Your task to perform on an android device: Go to network settings Image 0: 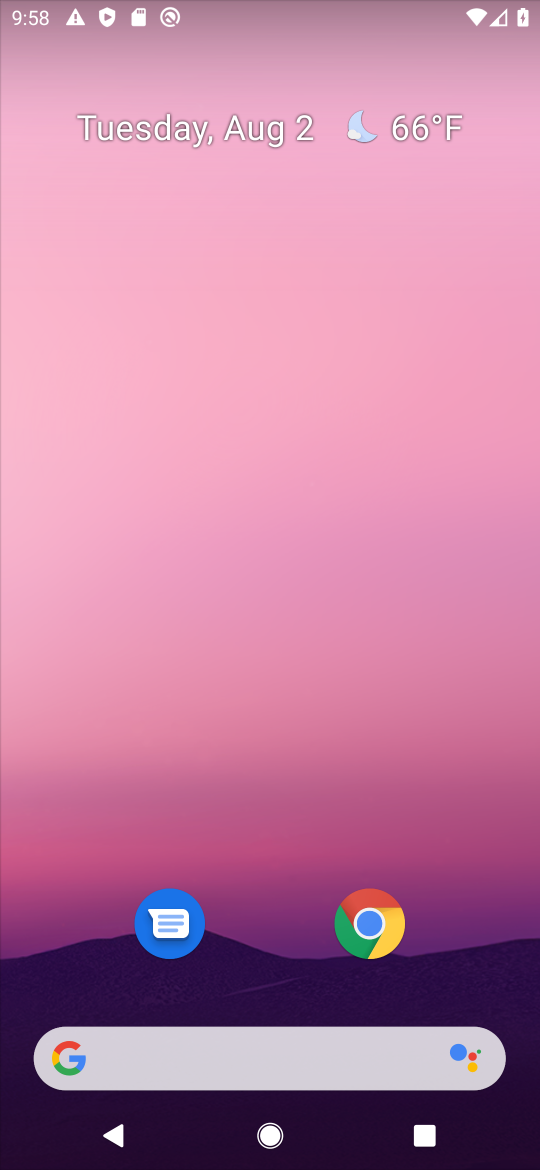
Step 0: press home button
Your task to perform on an android device: Go to network settings Image 1: 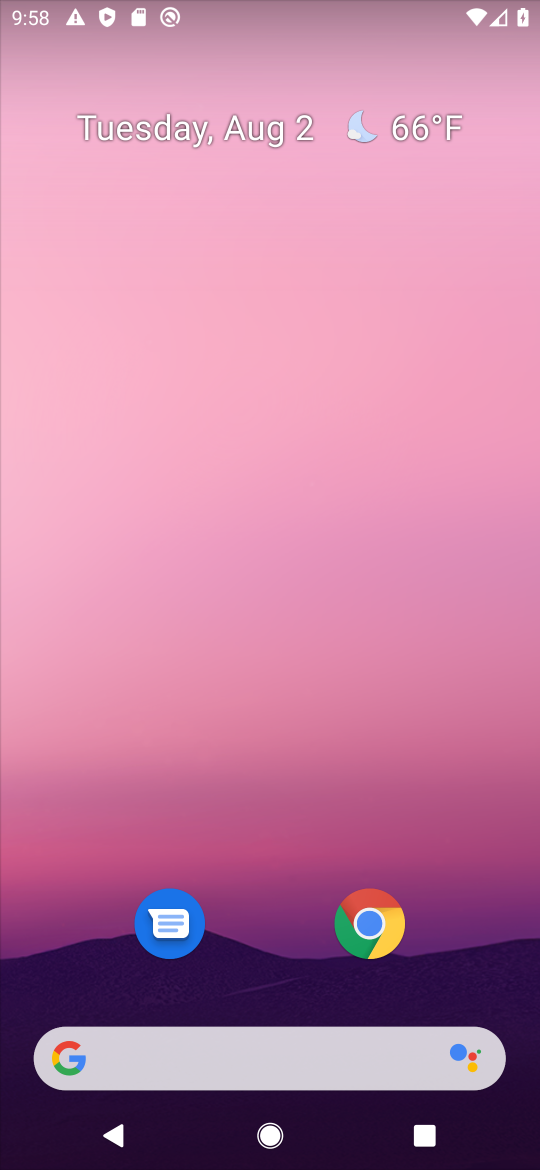
Step 1: drag from (280, 945) to (234, 162)
Your task to perform on an android device: Go to network settings Image 2: 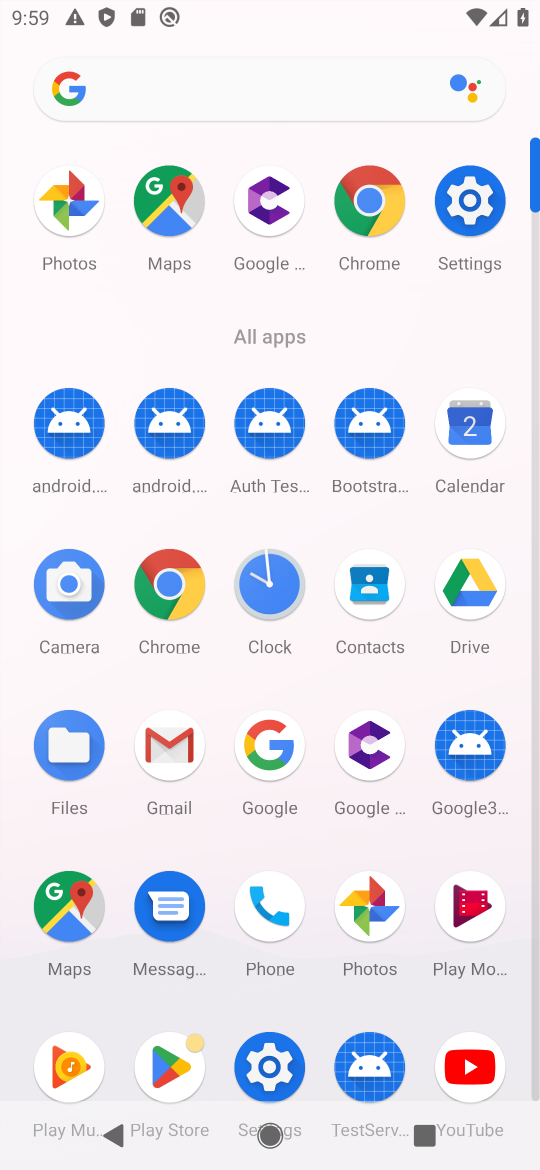
Step 2: click (449, 190)
Your task to perform on an android device: Go to network settings Image 3: 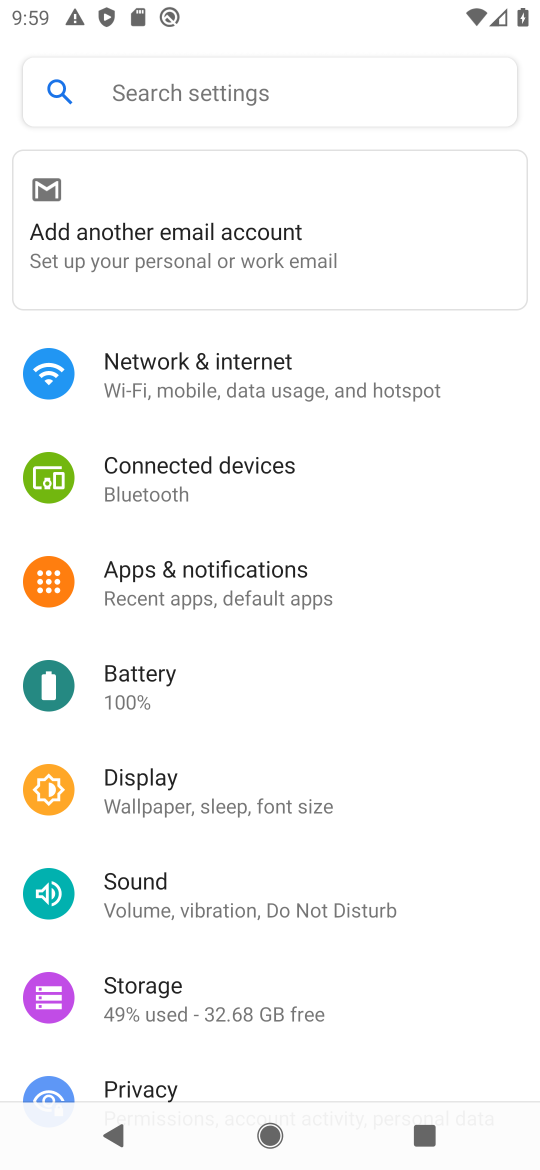
Step 3: click (261, 382)
Your task to perform on an android device: Go to network settings Image 4: 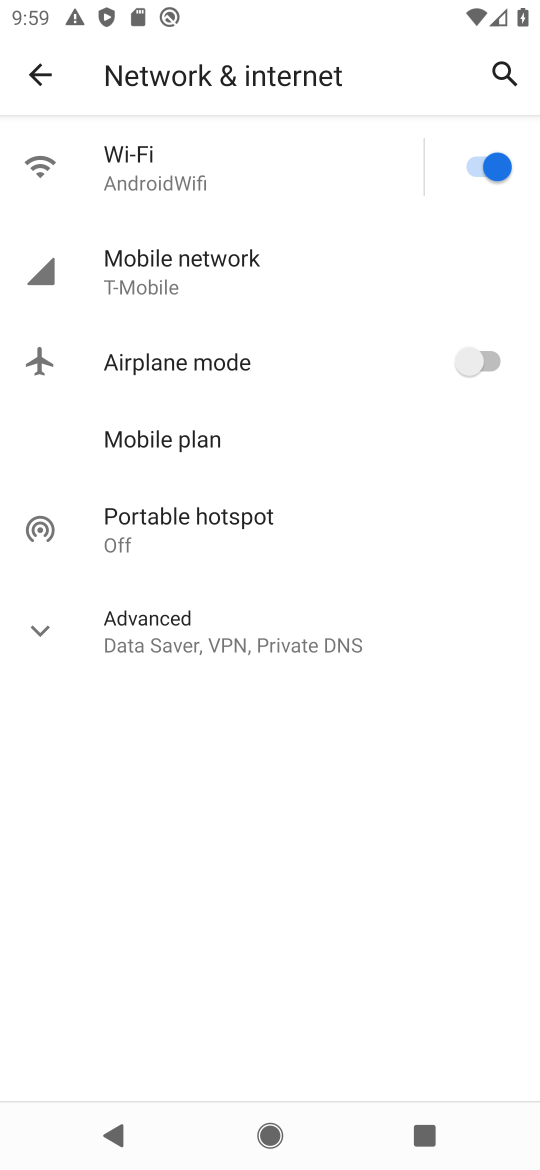
Step 4: task complete